Your task to perform on an android device: turn pop-ups off in chrome Image 0: 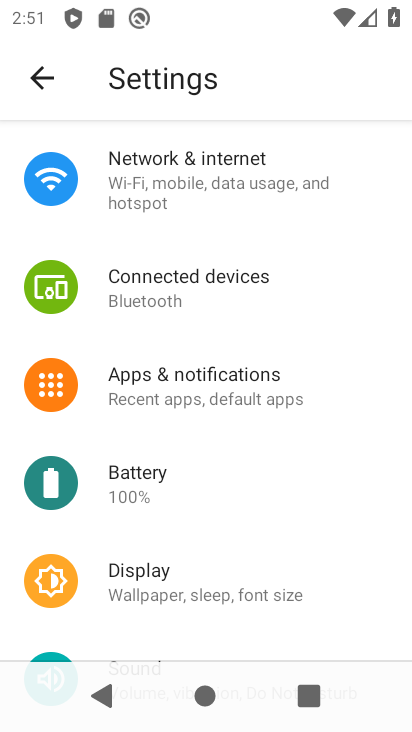
Step 0: click (202, 374)
Your task to perform on an android device: turn pop-ups off in chrome Image 1: 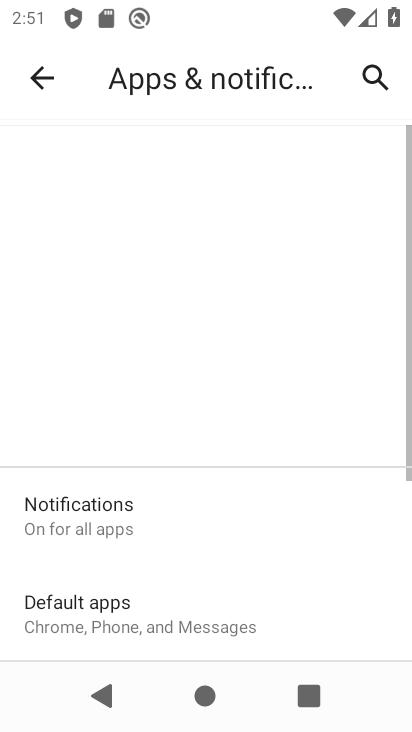
Step 1: drag from (159, 537) to (266, 46)
Your task to perform on an android device: turn pop-ups off in chrome Image 2: 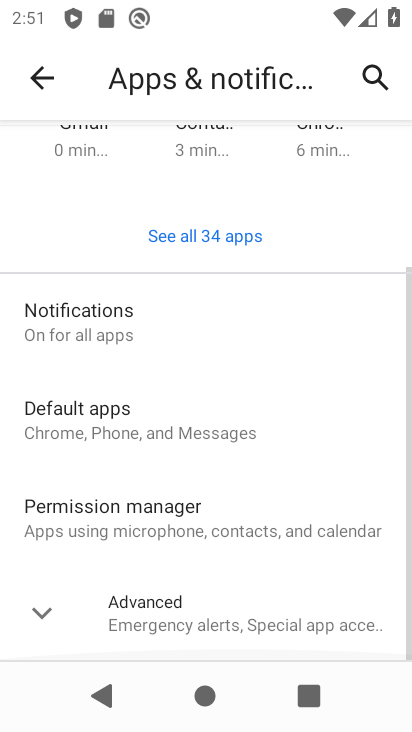
Step 2: drag from (155, 563) to (275, 67)
Your task to perform on an android device: turn pop-ups off in chrome Image 3: 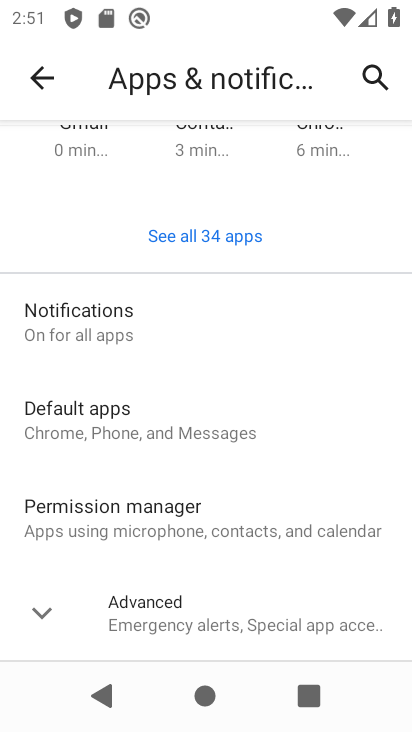
Step 3: press home button
Your task to perform on an android device: turn pop-ups off in chrome Image 4: 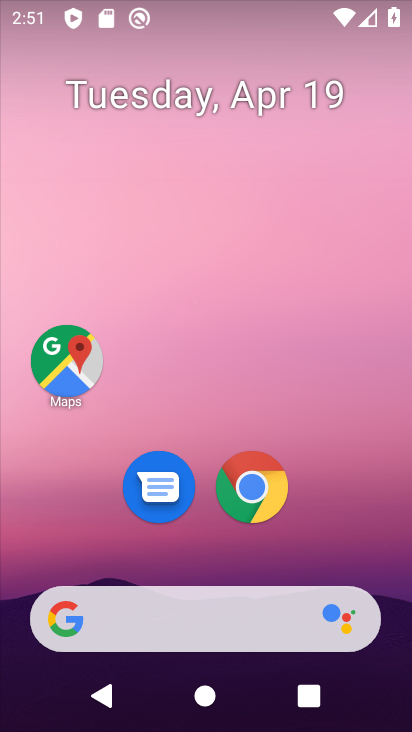
Step 4: click (263, 483)
Your task to perform on an android device: turn pop-ups off in chrome Image 5: 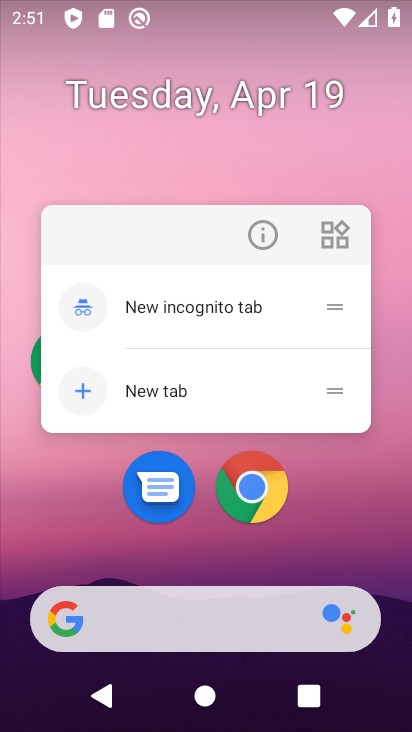
Step 5: click (237, 471)
Your task to perform on an android device: turn pop-ups off in chrome Image 6: 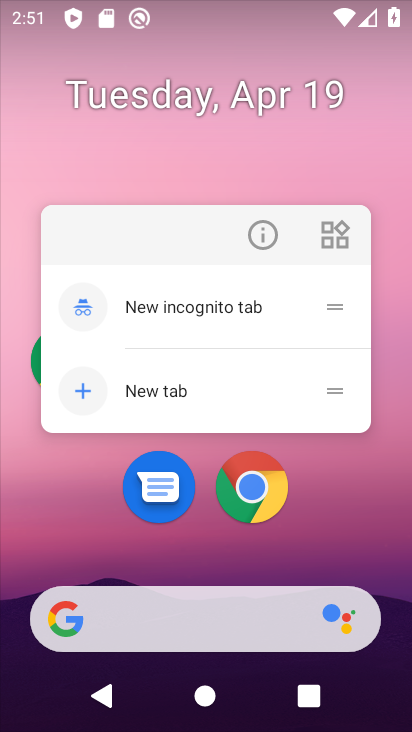
Step 6: click (267, 485)
Your task to perform on an android device: turn pop-ups off in chrome Image 7: 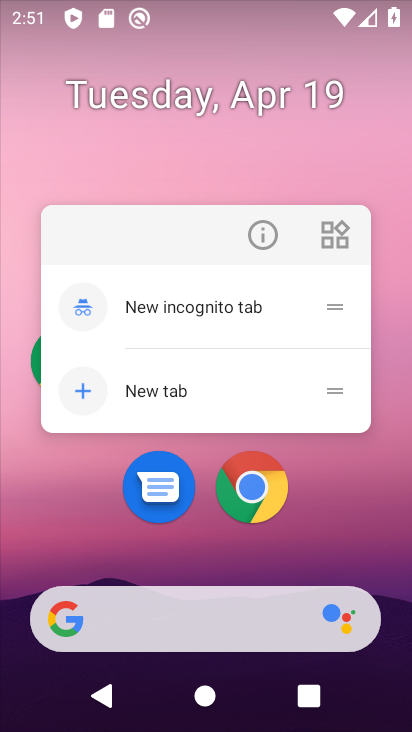
Step 7: click (251, 483)
Your task to perform on an android device: turn pop-ups off in chrome Image 8: 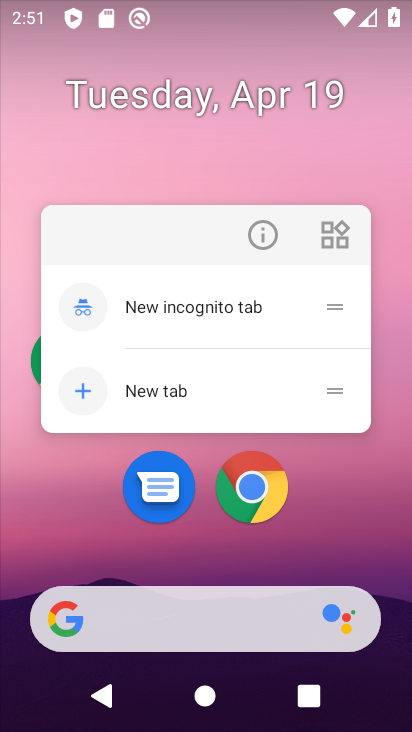
Step 8: click (249, 467)
Your task to perform on an android device: turn pop-ups off in chrome Image 9: 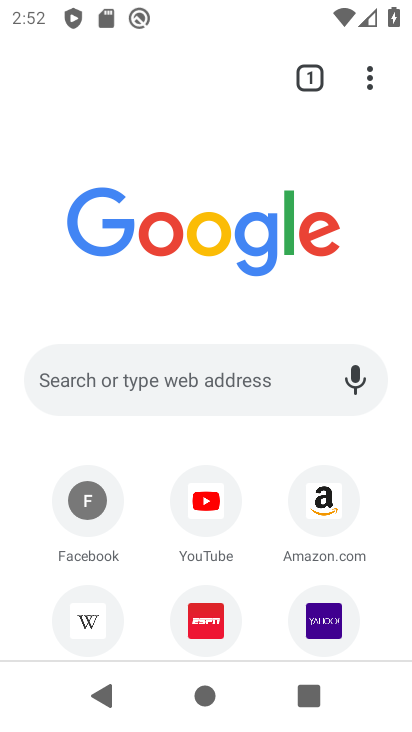
Step 9: click (367, 74)
Your task to perform on an android device: turn pop-ups off in chrome Image 10: 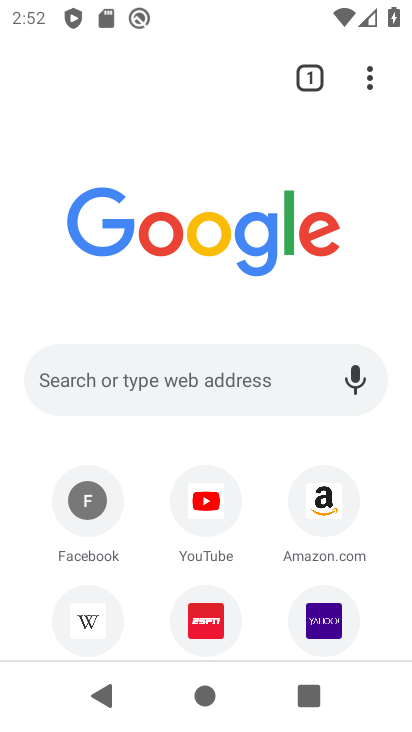
Step 10: click (370, 81)
Your task to perform on an android device: turn pop-ups off in chrome Image 11: 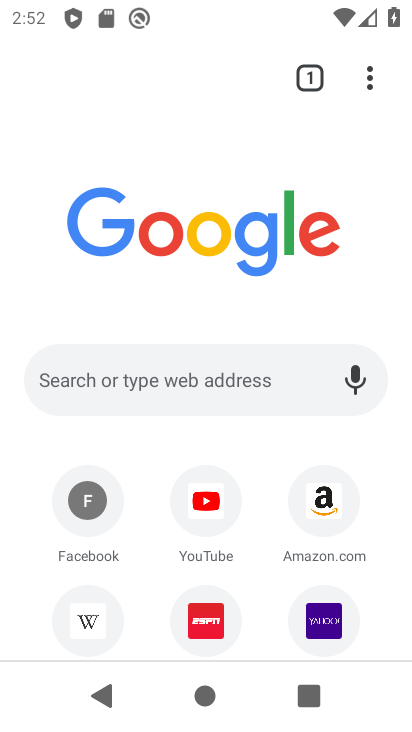
Step 11: drag from (364, 70) to (130, 539)
Your task to perform on an android device: turn pop-ups off in chrome Image 12: 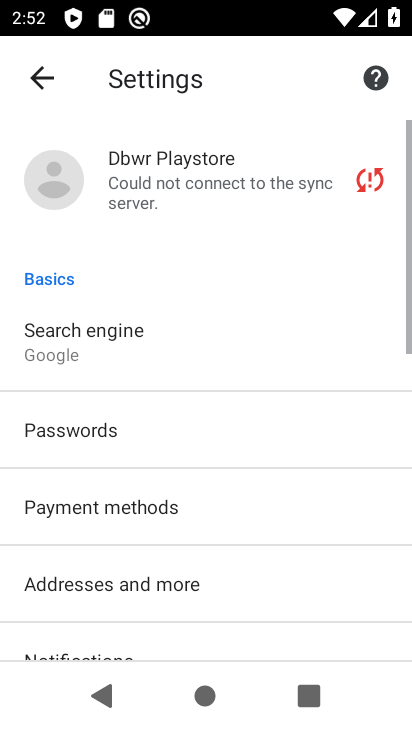
Step 12: drag from (201, 502) to (291, 0)
Your task to perform on an android device: turn pop-ups off in chrome Image 13: 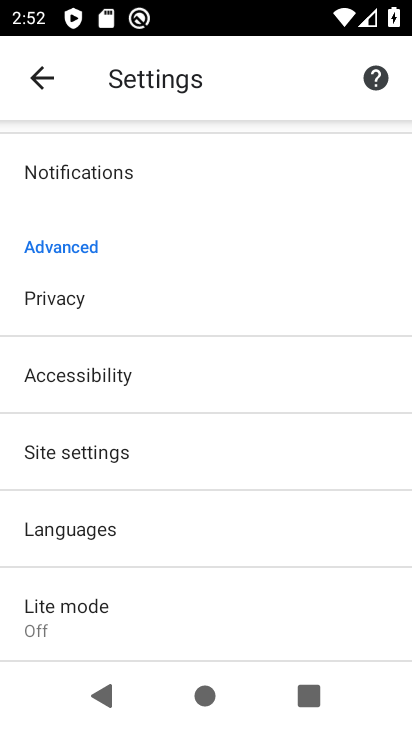
Step 13: drag from (190, 519) to (264, 191)
Your task to perform on an android device: turn pop-ups off in chrome Image 14: 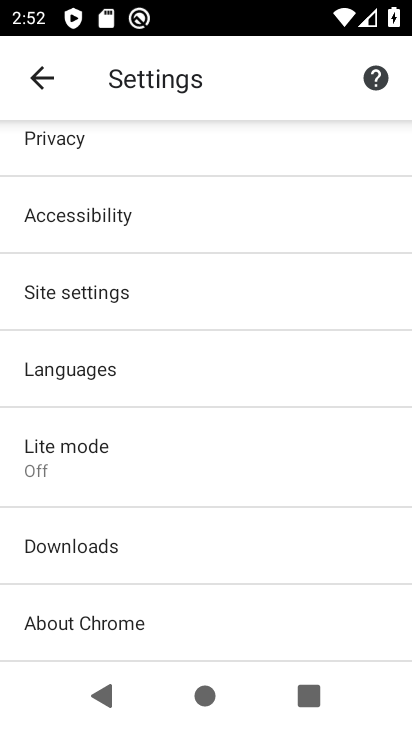
Step 14: click (84, 287)
Your task to perform on an android device: turn pop-ups off in chrome Image 15: 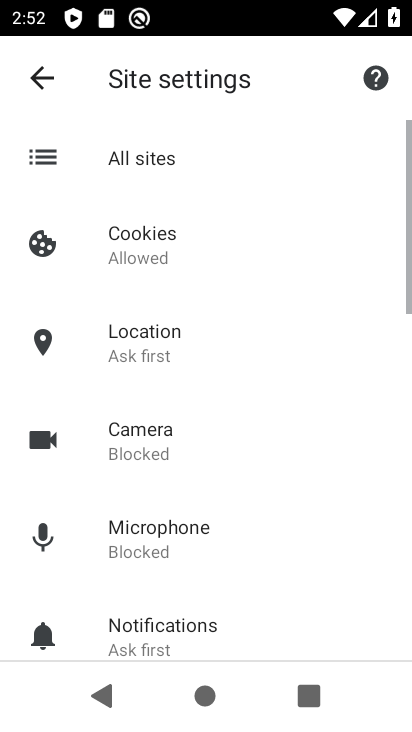
Step 15: drag from (234, 551) to (320, 94)
Your task to perform on an android device: turn pop-ups off in chrome Image 16: 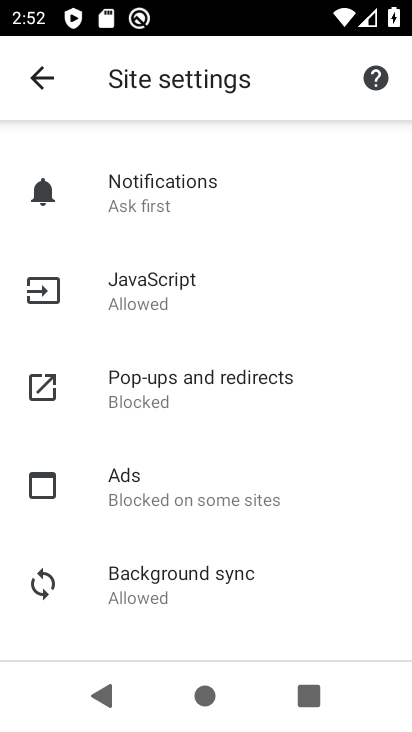
Step 16: click (147, 393)
Your task to perform on an android device: turn pop-ups off in chrome Image 17: 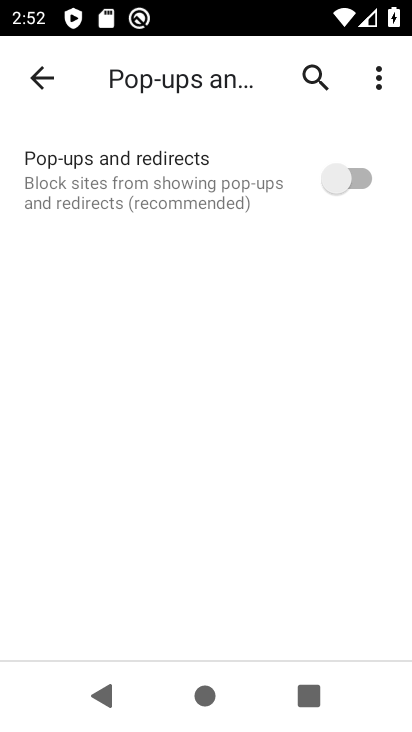
Step 17: task complete